Your task to perform on an android device: Open the Play Movies app and select the watchlist tab. Image 0: 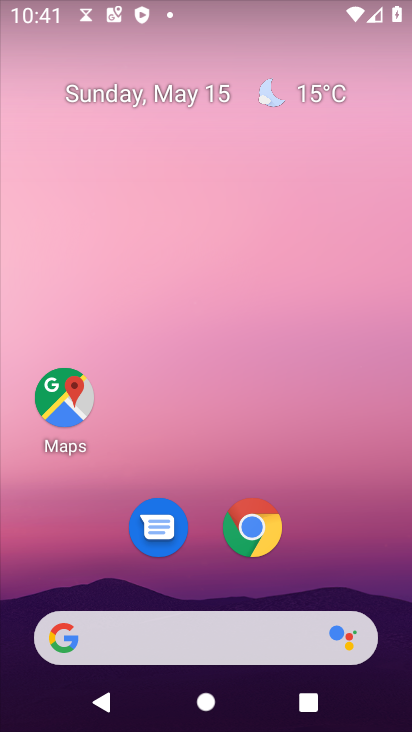
Step 0: drag from (335, 568) to (298, 52)
Your task to perform on an android device: Open the Play Movies app and select the watchlist tab. Image 1: 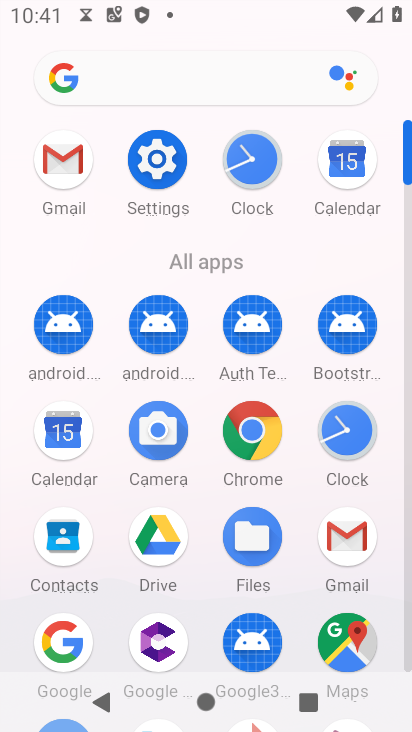
Step 1: drag from (206, 518) to (212, 244)
Your task to perform on an android device: Open the Play Movies app and select the watchlist tab. Image 2: 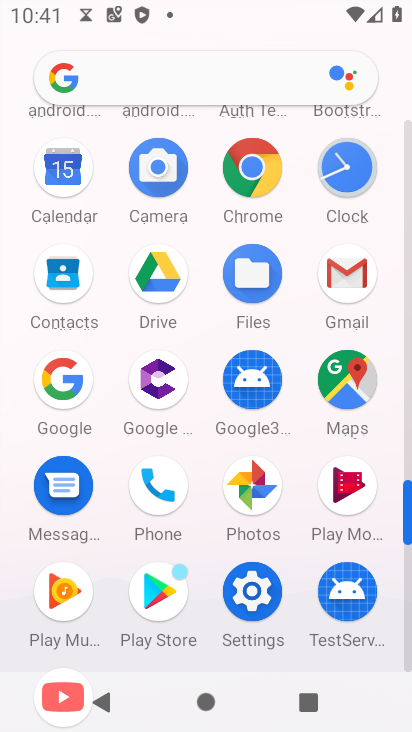
Step 2: click (349, 482)
Your task to perform on an android device: Open the Play Movies app and select the watchlist tab. Image 3: 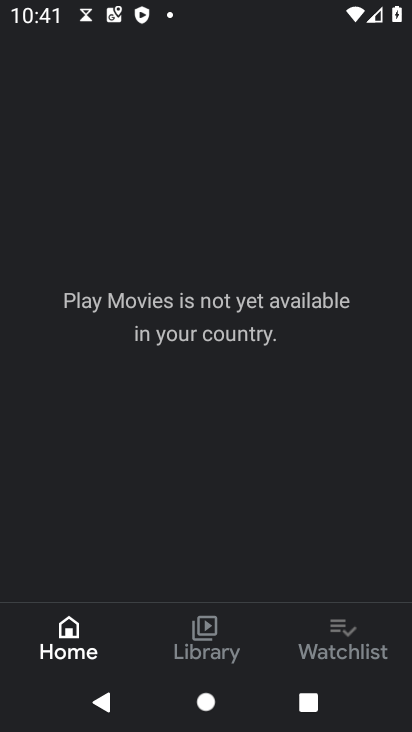
Step 3: click (340, 629)
Your task to perform on an android device: Open the Play Movies app and select the watchlist tab. Image 4: 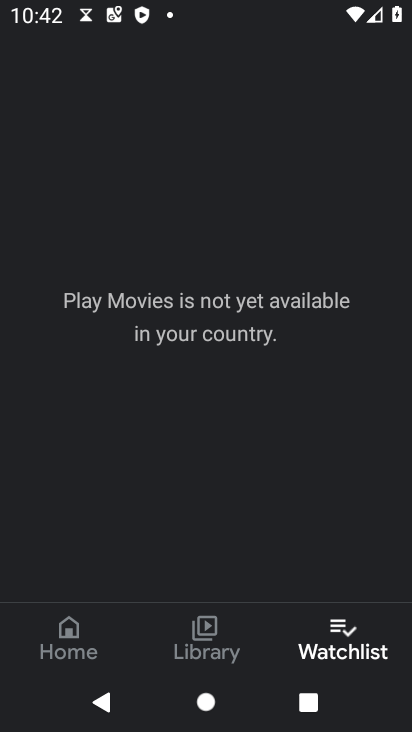
Step 4: task complete